Your task to perform on an android device: Open internet settings Image 0: 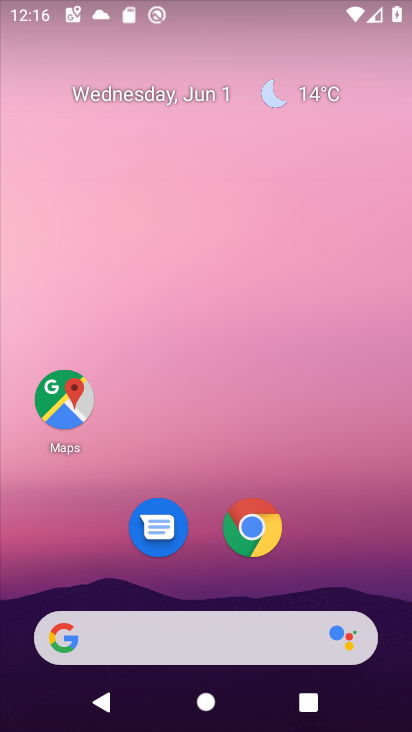
Step 0: drag from (359, 588) to (317, 9)
Your task to perform on an android device: Open internet settings Image 1: 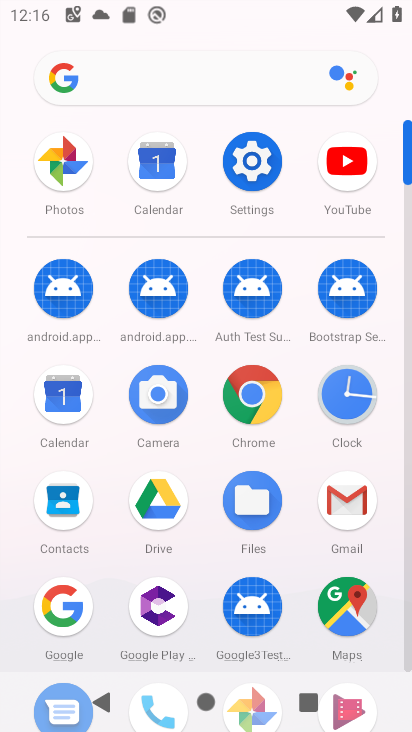
Step 1: click (246, 157)
Your task to perform on an android device: Open internet settings Image 2: 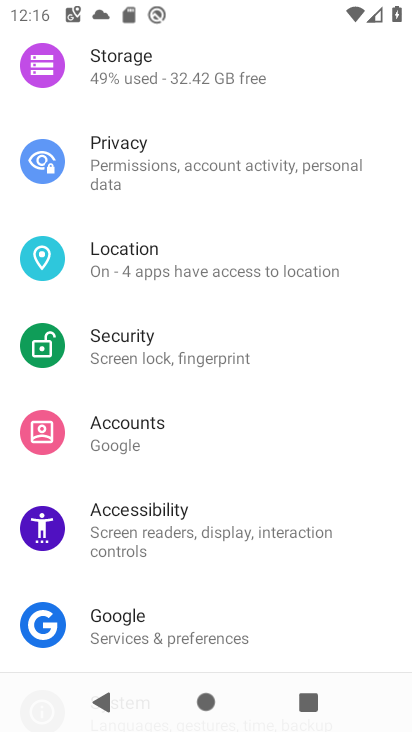
Step 2: drag from (354, 145) to (274, 435)
Your task to perform on an android device: Open internet settings Image 3: 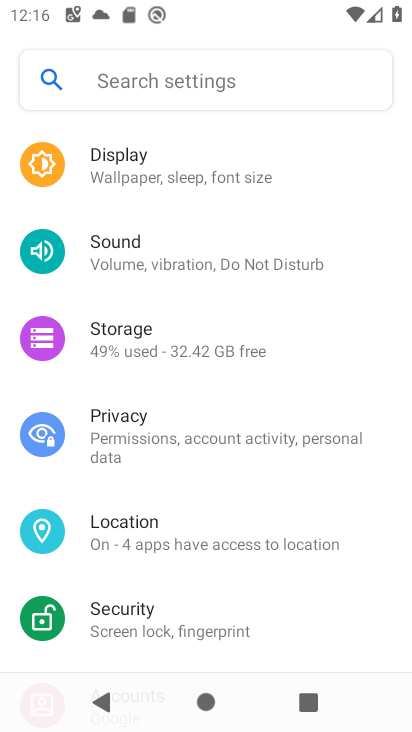
Step 3: drag from (229, 189) to (209, 486)
Your task to perform on an android device: Open internet settings Image 4: 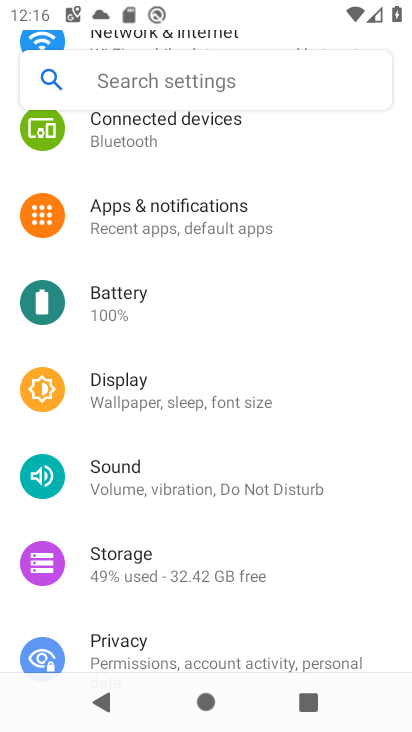
Step 4: drag from (251, 191) to (245, 549)
Your task to perform on an android device: Open internet settings Image 5: 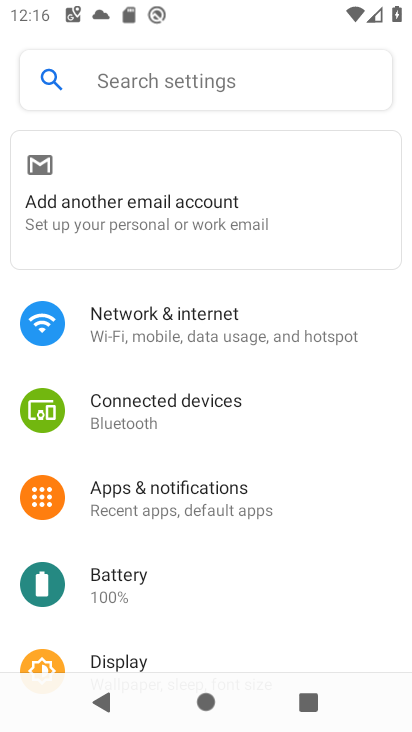
Step 5: click (144, 335)
Your task to perform on an android device: Open internet settings Image 6: 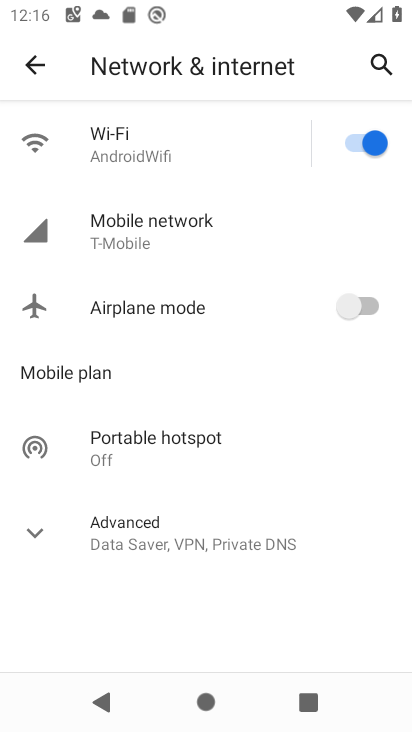
Step 6: task complete